Your task to perform on an android device: install app "AliExpress" Image 0: 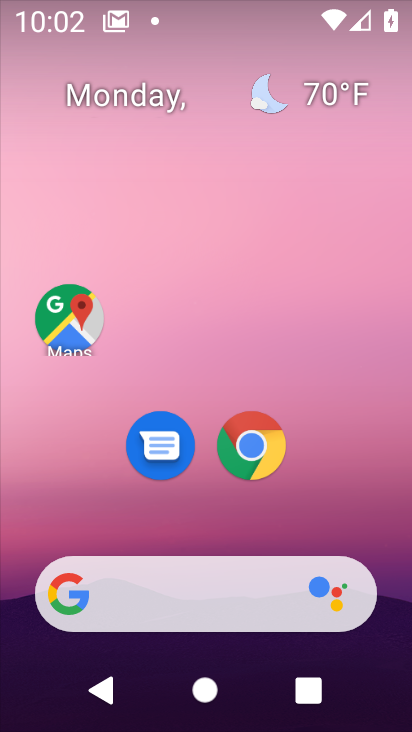
Step 0: drag from (203, 585) to (238, 91)
Your task to perform on an android device: install app "AliExpress" Image 1: 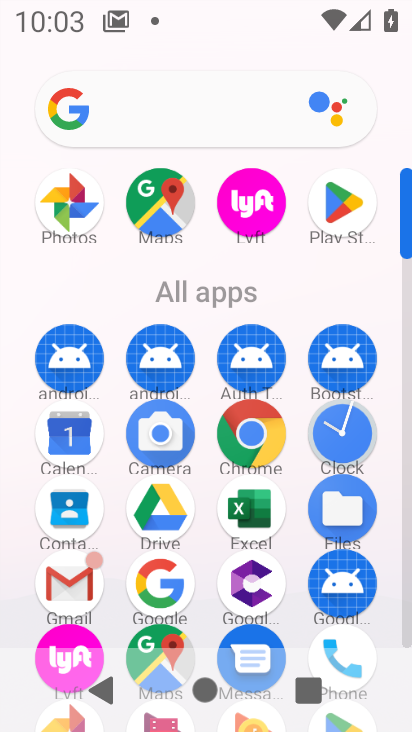
Step 1: click (348, 204)
Your task to perform on an android device: install app "AliExpress" Image 2: 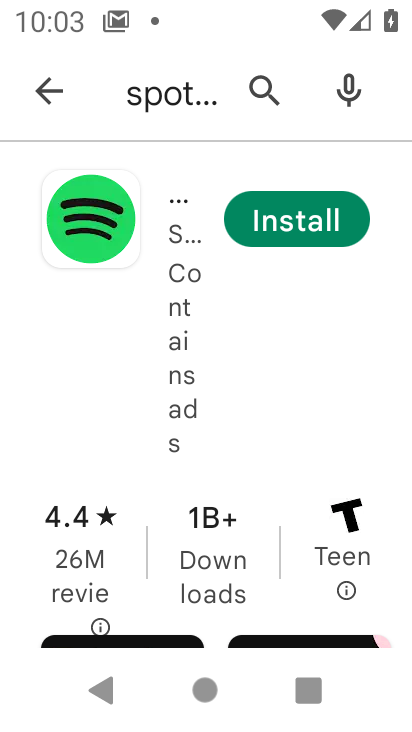
Step 2: click (57, 92)
Your task to perform on an android device: install app "AliExpress" Image 3: 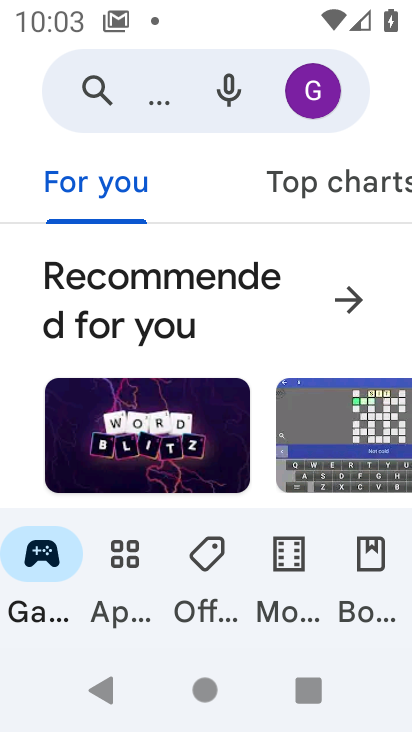
Step 3: click (89, 88)
Your task to perform on an android device: install app "AliExpress" Image 4: 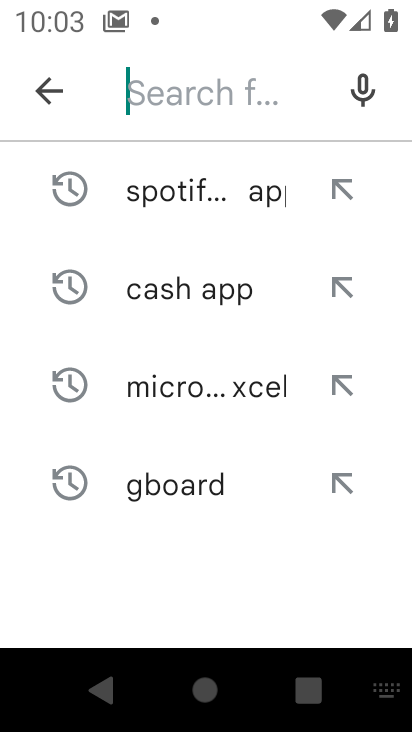
Step 4: type "AliExpress"
Your task to perform on an android device: install app "AliExpress" Image 5: 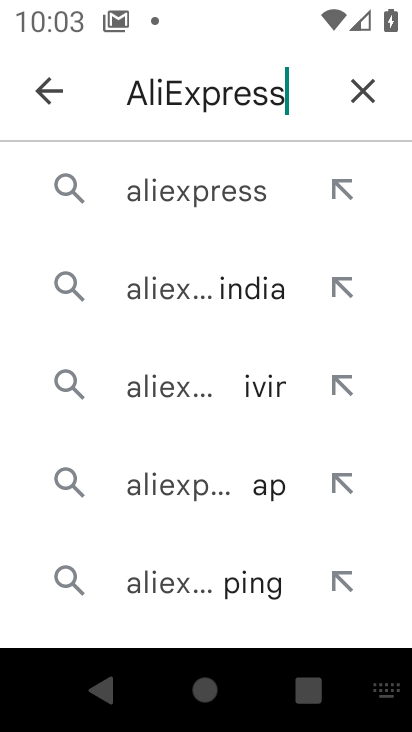
Step 5: click (259, 202)
Your task to perform on an android device: install app "AliExpress" Image 6: 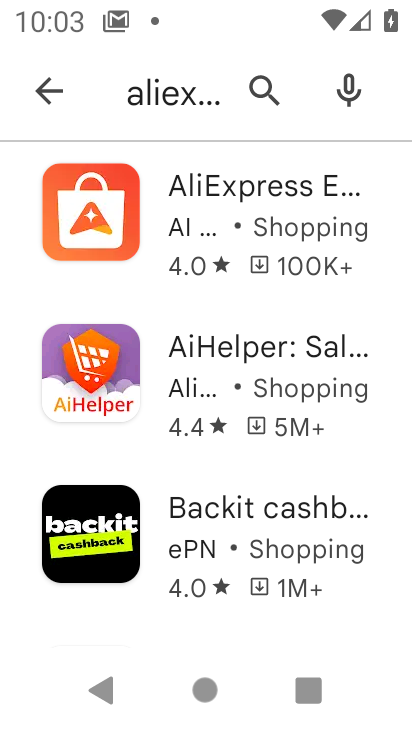
Step 6: click (259, 201)
Your task to perform on an android device: install app "AliExpress" Image 7: 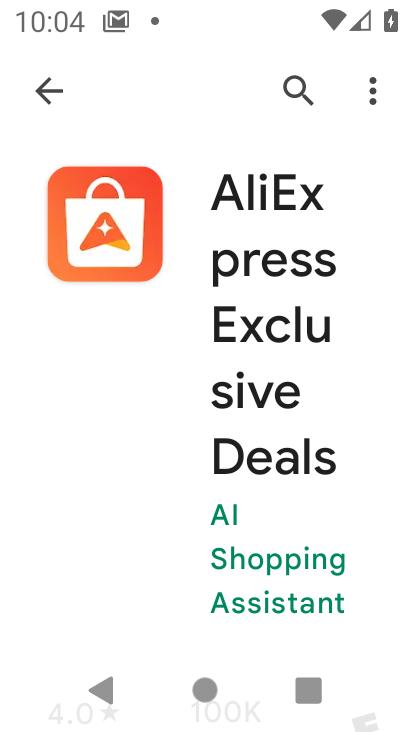
Step 7: drag from (250, 468) to (243, 155)
Your task to perform on an android device: install app "AliExpress" Image 8: 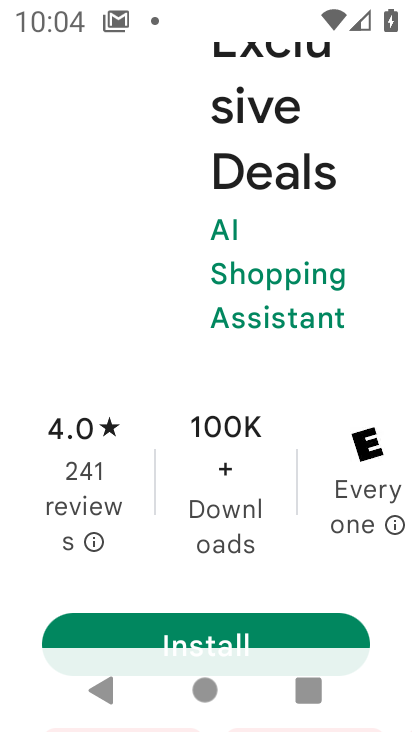
Step 8: drag from (251, 467) to (267, 270)
Your task to perform on an android device: install app "AliExpress" Image 9: 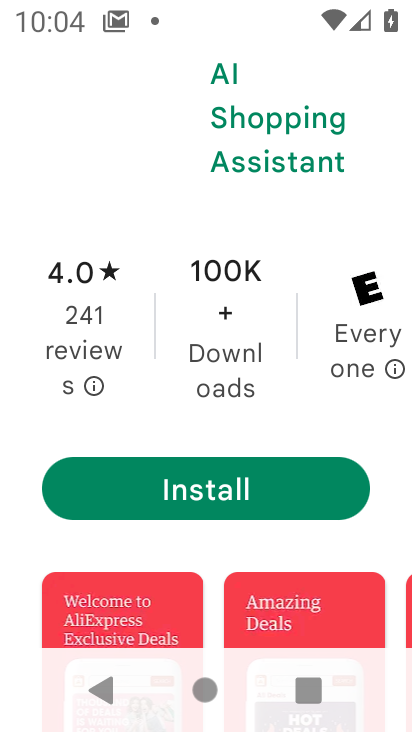
Step 9: click (237, 503)
Your task to perform on an android device: install app "AliExpress" Image 10: 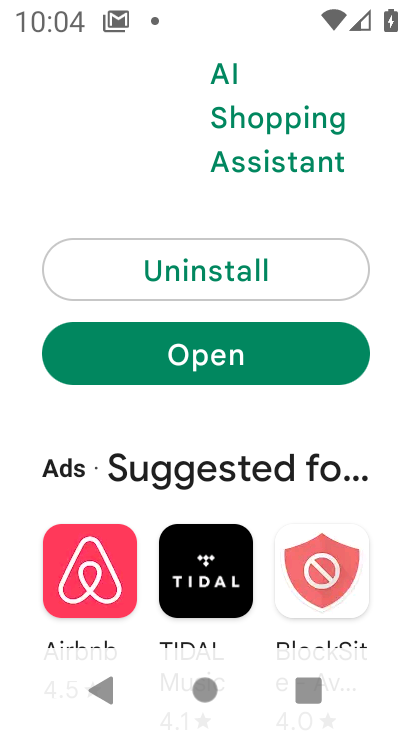
Step 10: task complete